Your task to perform on an android device: set the timer Image 0: 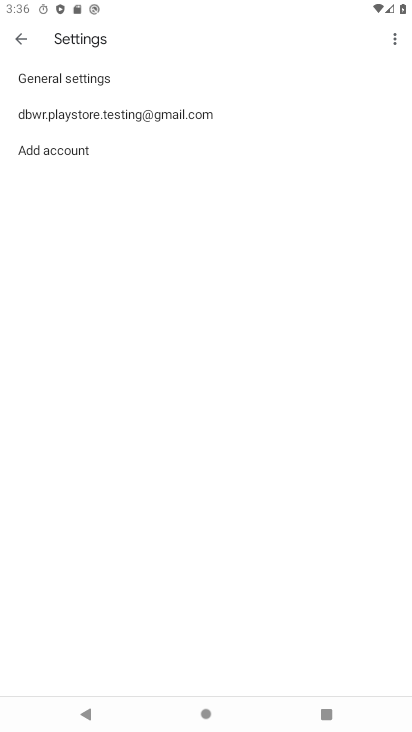
Step 0: press home button
Your task to perform on an android device: set the timer Image 1: 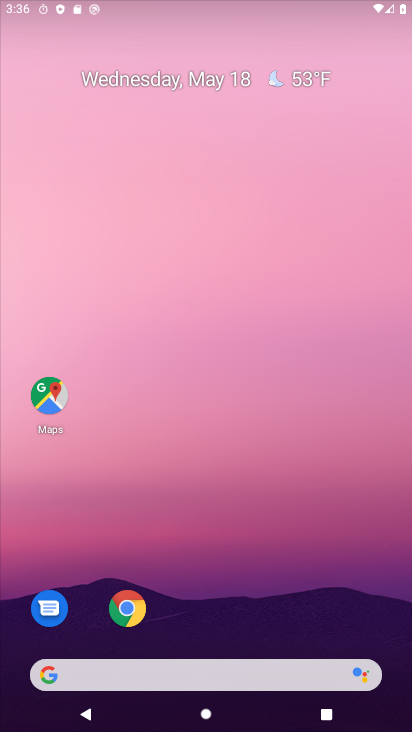
Step 1: drag from (298, 648) to (280, 18)
Your task to perform on an android device: set the timer Image 2: 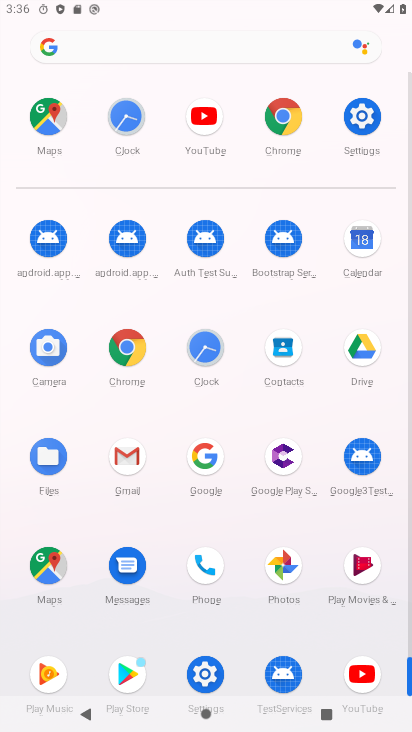
Step 2: click (195, 365)
Your task to perform on an android device: set the timer Image 3: 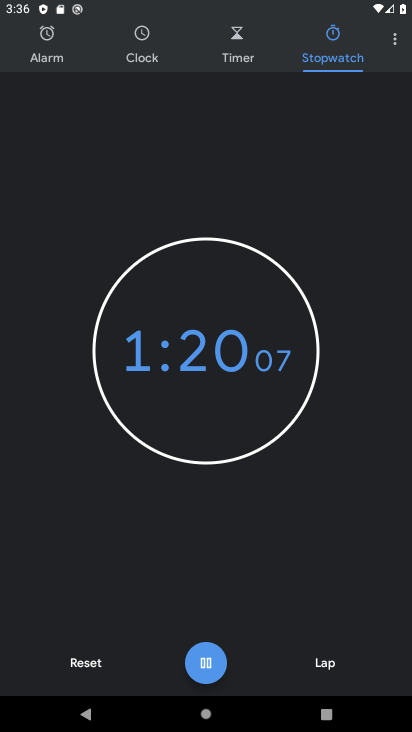
Step 3: click (234, 31)
Your task to perform on an android device: set the timer Image 4: 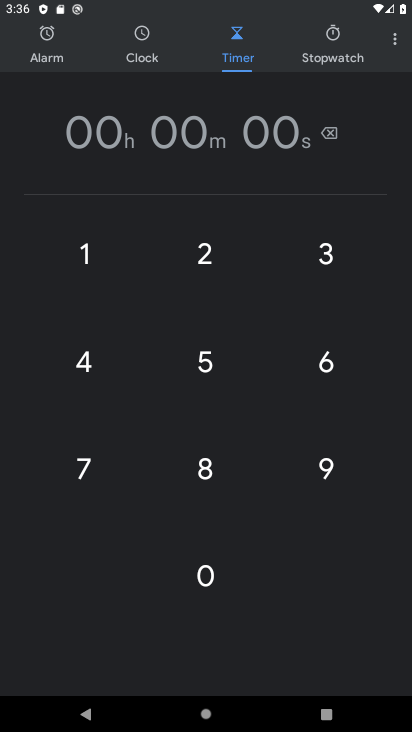
Step 4: task complete